Your task to perform on an android device: Search for the new Jordans on Nike.com Image 0: 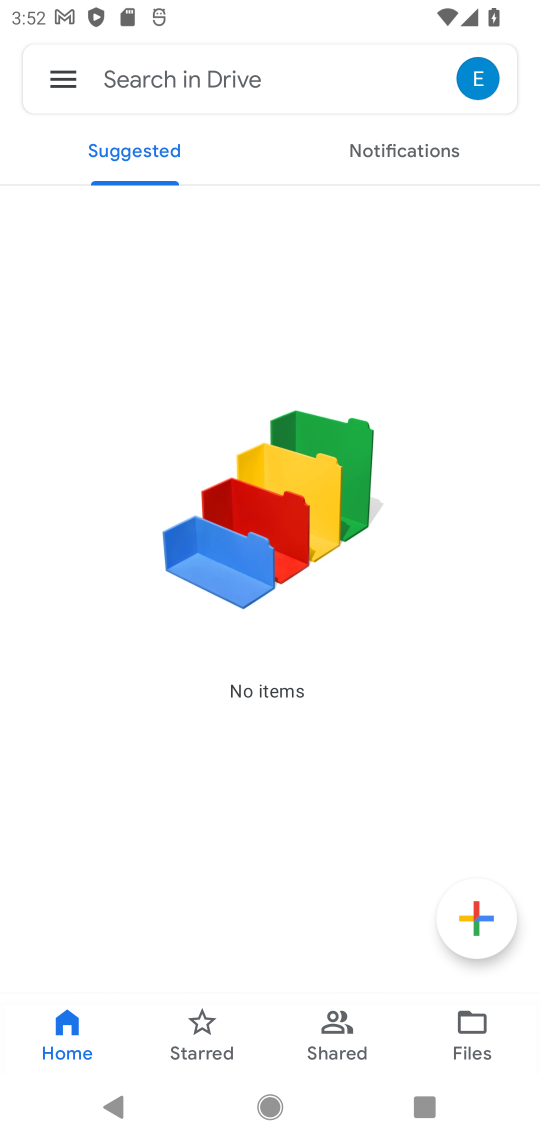
Step 0: press home button
Your task to perform on an android device: Search for the new Jordans on Nike.com Image 1: 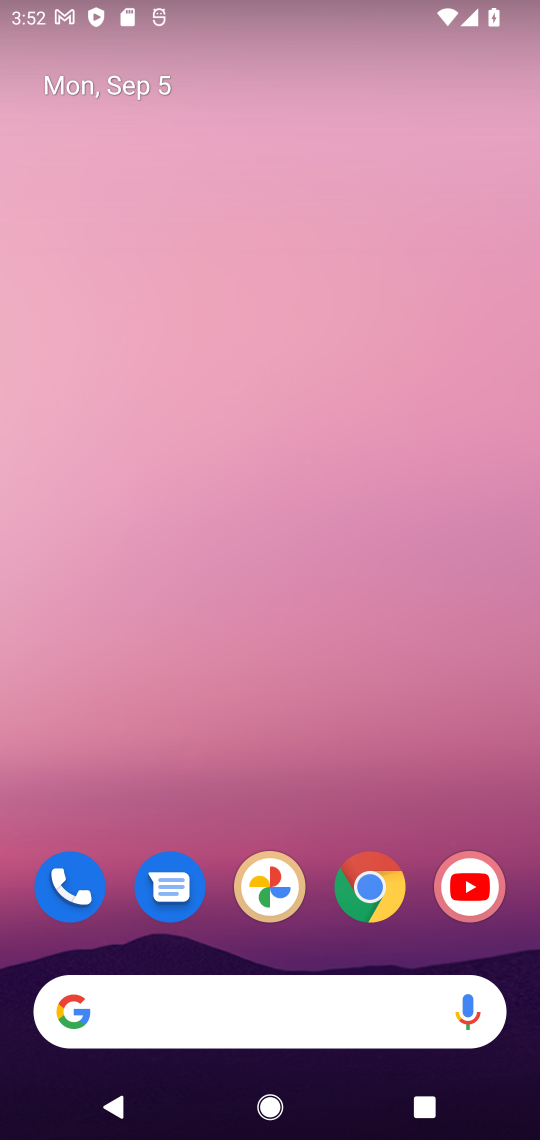
Step 1: drag from (313, 501) to (342, 3)
Your task to perform on an android device: Search for the new Jordans on Nike.com Image 2: 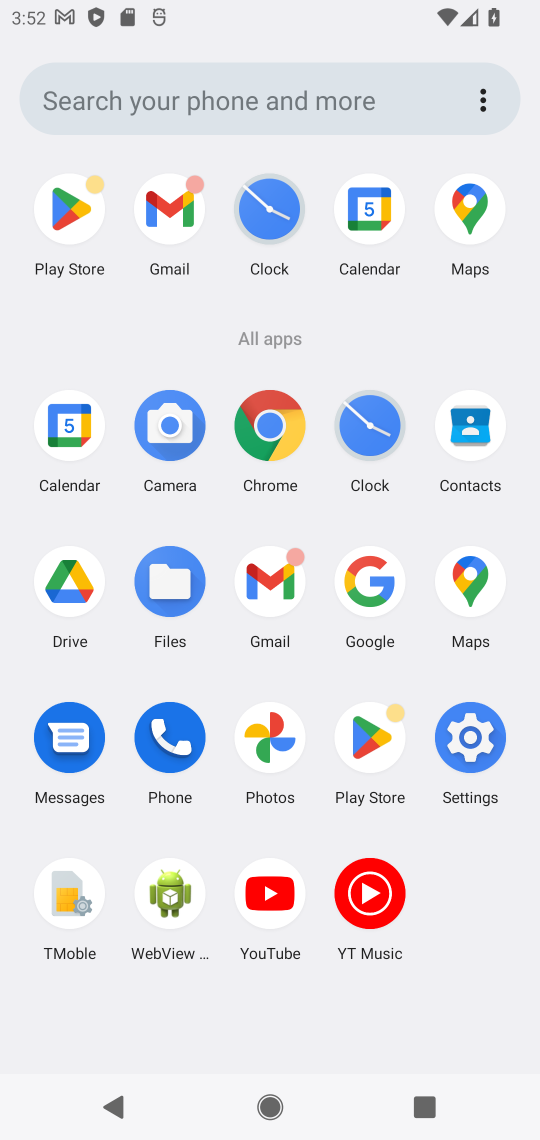
Step 2: click (275, 416)
Your task to perform on an android device: Search for the new Jordans on Nike.com Image 3: 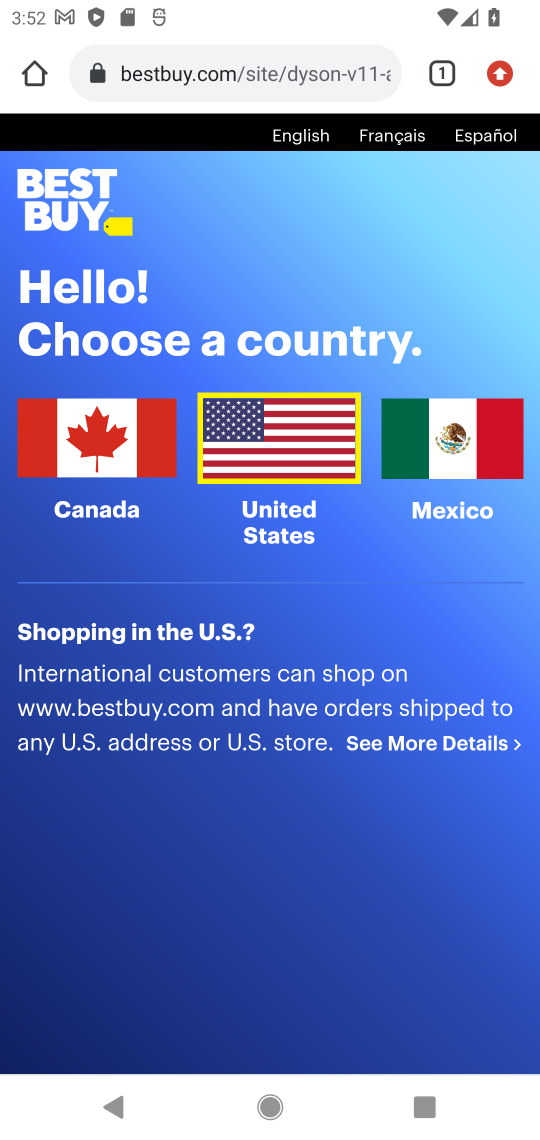
Step 3: click (258, 59)
Your task to perform on an android device: Search for the new Jordans on Nike.com Image 4: 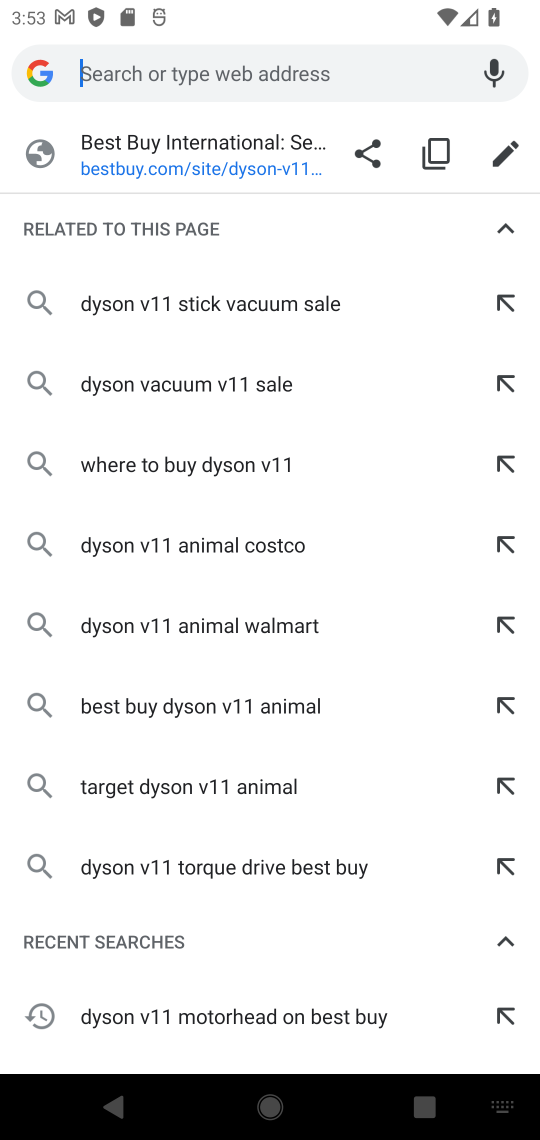
Step 4: type "new jordans on Nike.com"
Your task to perform on an android device: Search for the new Jordans on Nike.com Image 5: 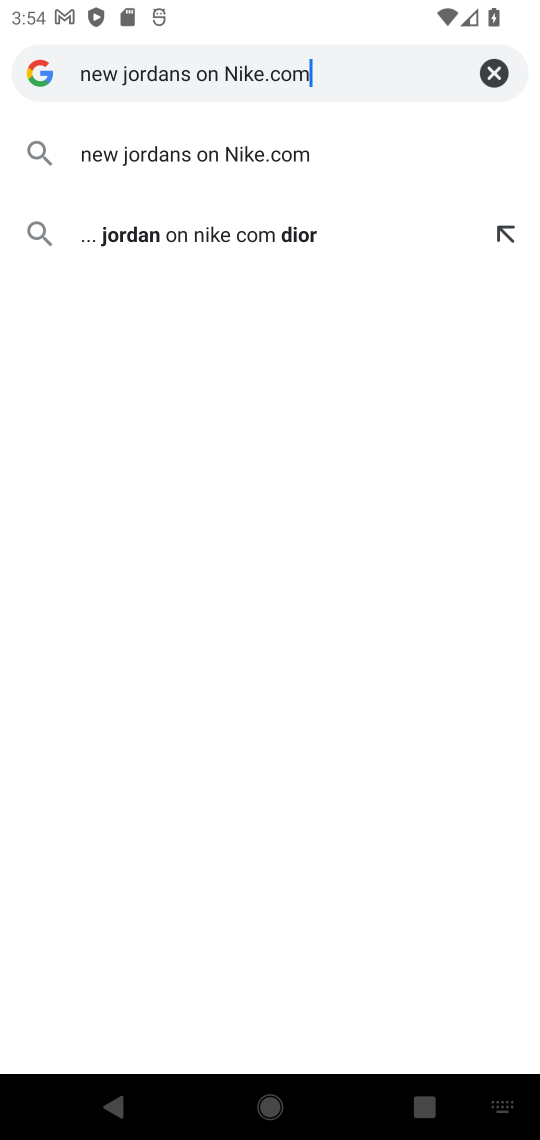
Step 5: press enter
Your task to perform on an android device: Search for the new Jordans on Nike.com Image 6: 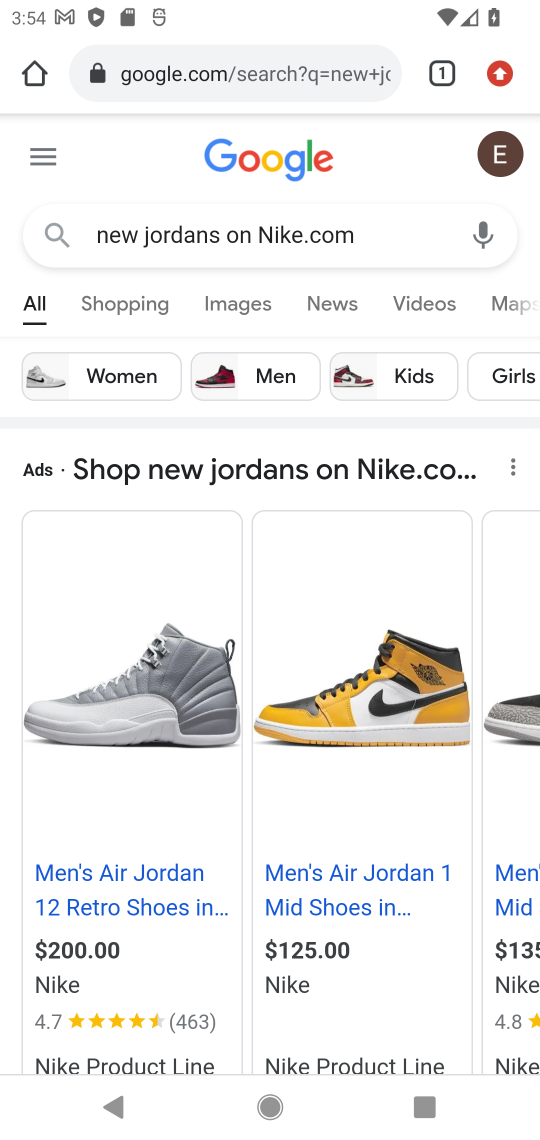
Step 6: task complete